Your task to perform on an android device: Open calendar and show me the fourth week of next month Image 0: 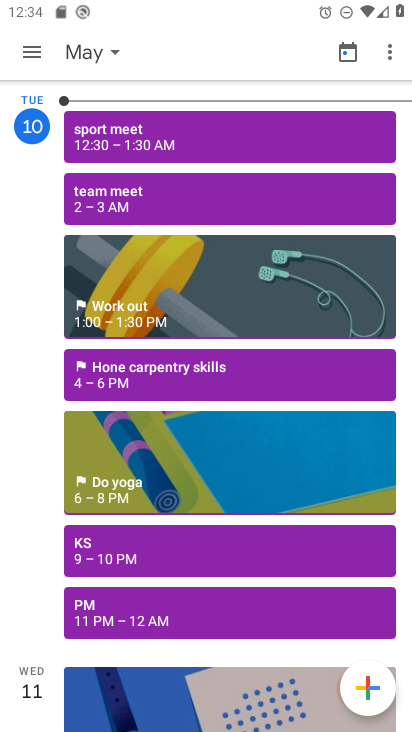
Step 0: press home button
Your task to perform on an android device: Open calendar and show me the fourth week of next month Image 1: 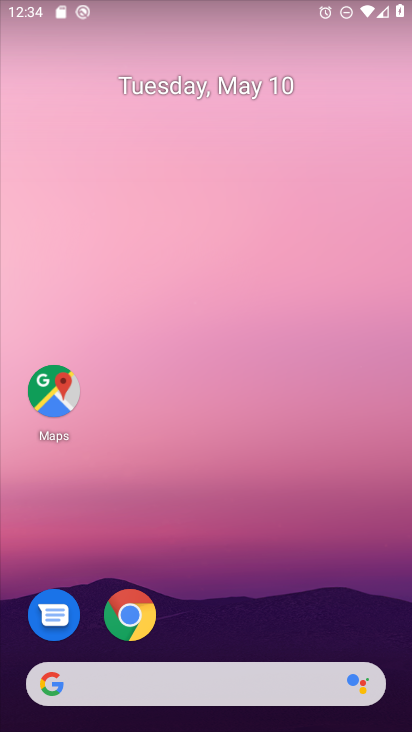
Step 1: drag from (253, 715) to (284, 394)
Your task to perform on an android device: Open calendar and show me the fourth week of next month Image 2: 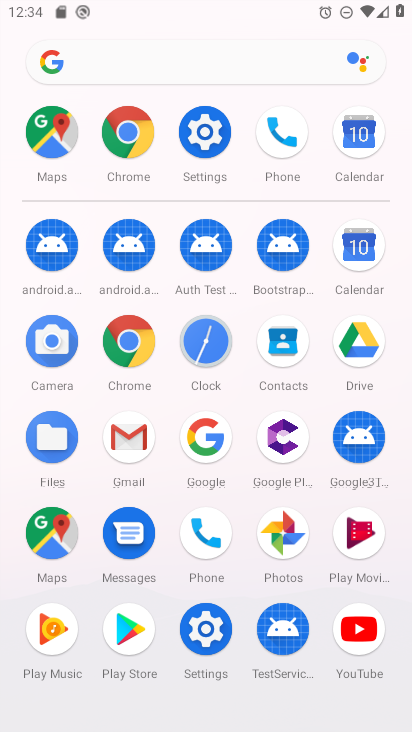
Step 2: click (373, 250)
Your task to perform on an android device: Open calendar and show me the fourth week of next month Image 3: 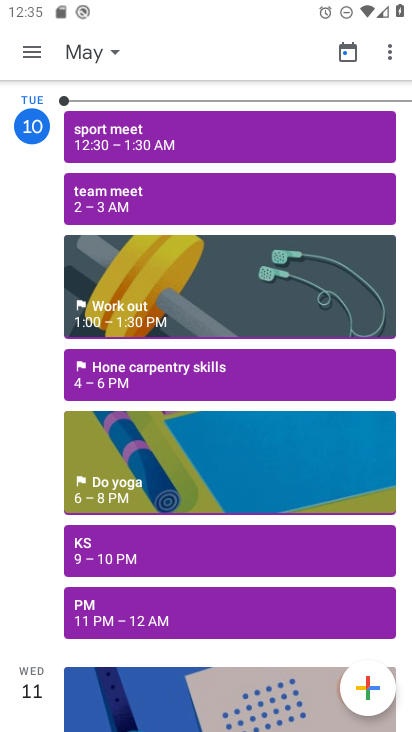
Step 3: click (24, 57)
Your task to perform on an android device: Open calendar and show me the fourth week of next month Image 4: 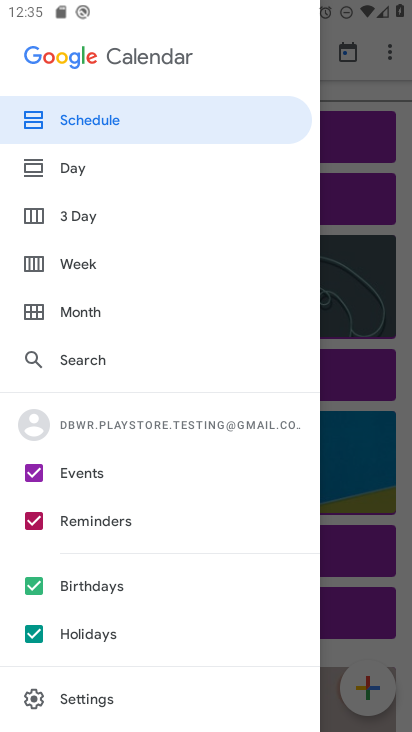
Step 4: click (87, 305)
Your task to perform on an android device: Open calendar and show me the fourth week of next month Image 5: 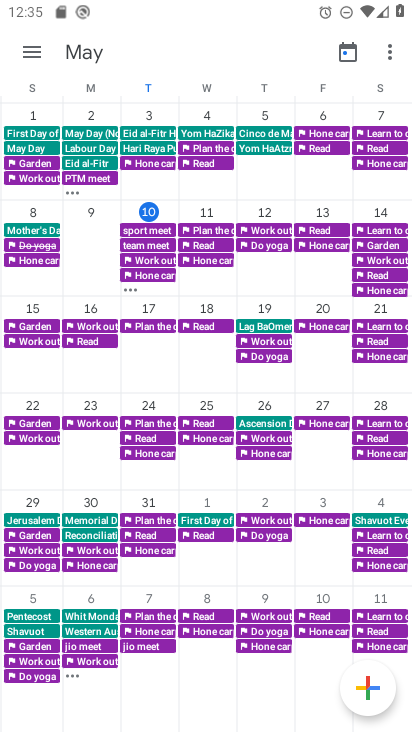
Step 5: drag from (367, 369) to (1, 381)
Your task to perform on an android device: Open calendar and show me the fourth week of next month Image 6: 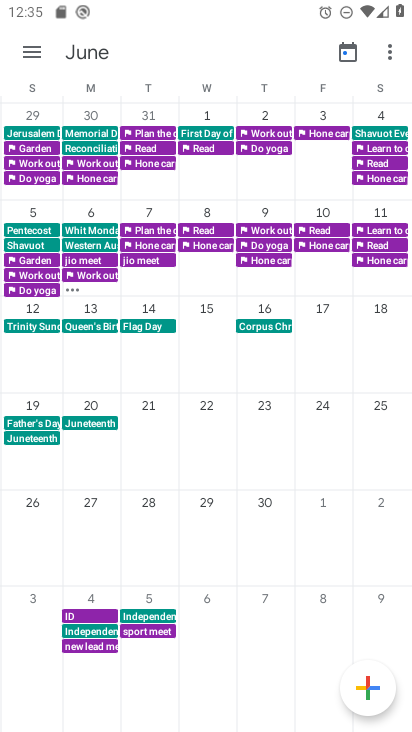
Step 6: click (87, 424)
Your task to perform on an android device: Open calendar and show me the fourth week of next month Image 7: 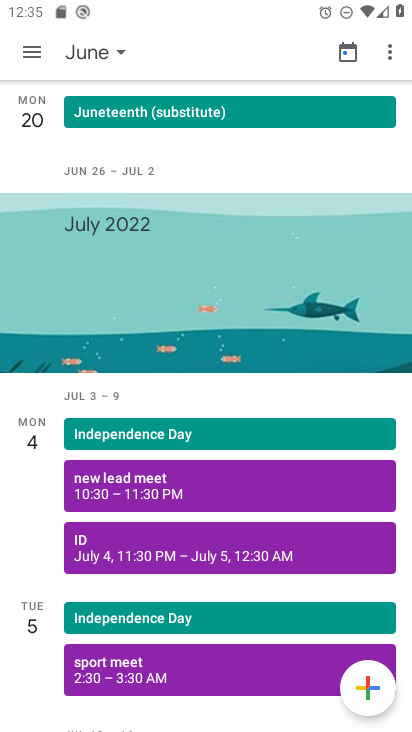
Step 7: task complete